Your task to perform on an android device: Open Google Chrome and open the bookmarks view Image 0: 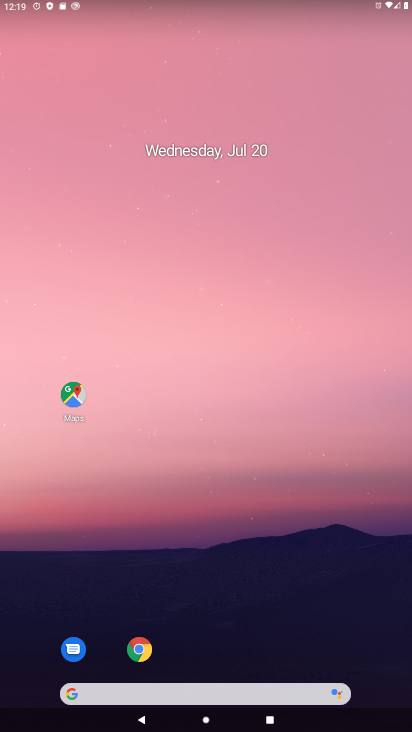
Step 0: click (138, 651)
Your task to perform on an android device: Open Google Chrome and open the bookmarks view Image 1: 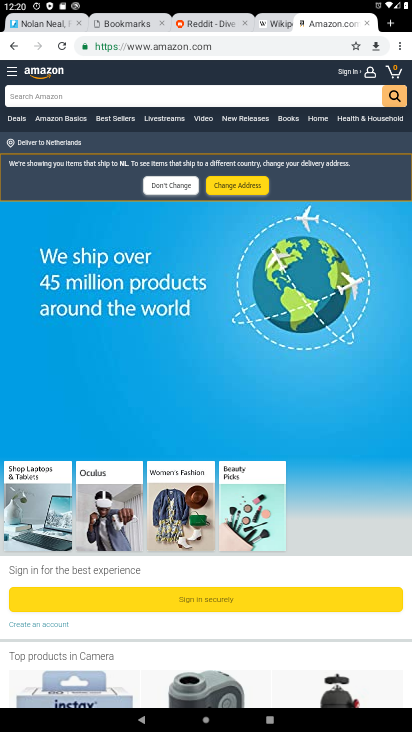
Step 1: click (402, 49)
Your task to perform on an android device: Open Google Chrome and open the bookmarks view Image 2: 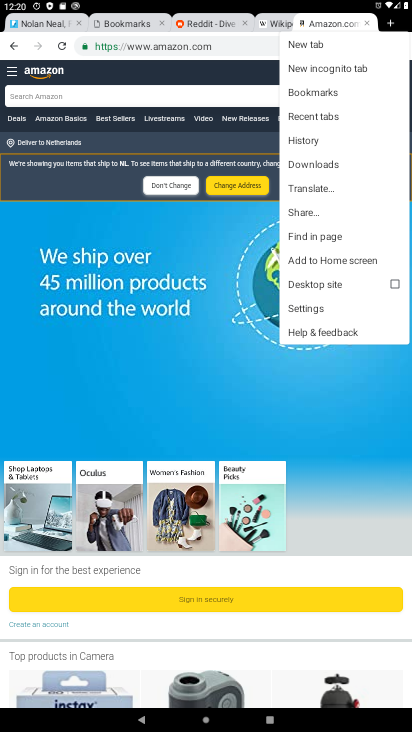
Step 2: click (325, 86)
Your task to perform on an android device: Open Google Chrome and open the bookmarks view Image 3: 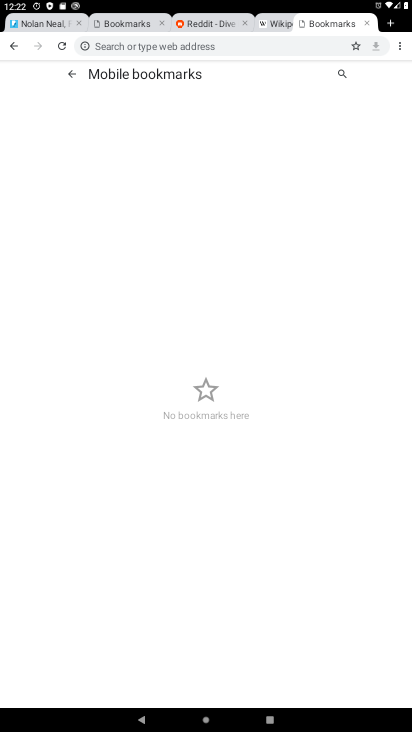
Step 3: task complete